Your task to perform on an android device: Search for apple airpods pro on bestbuy.com, select the first entry, and add it to the cart. Image 0: 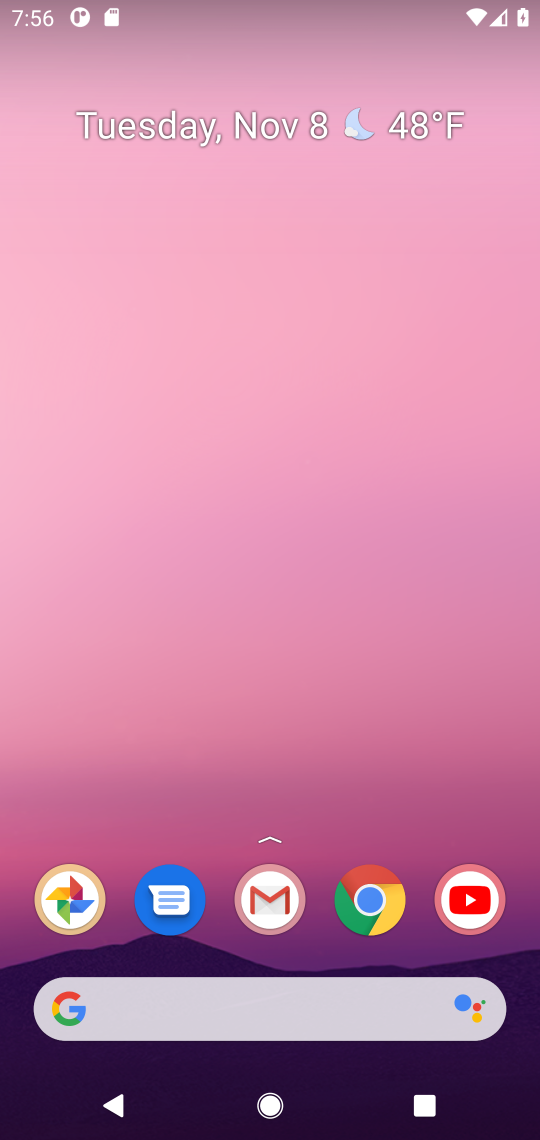
Step 0: drag from (272, 444) to (301, 80)
Your task to perform on an android device: Search for apple airpods pro on bestbuy.com, select the first entry, and add it to the cart. Image 1: 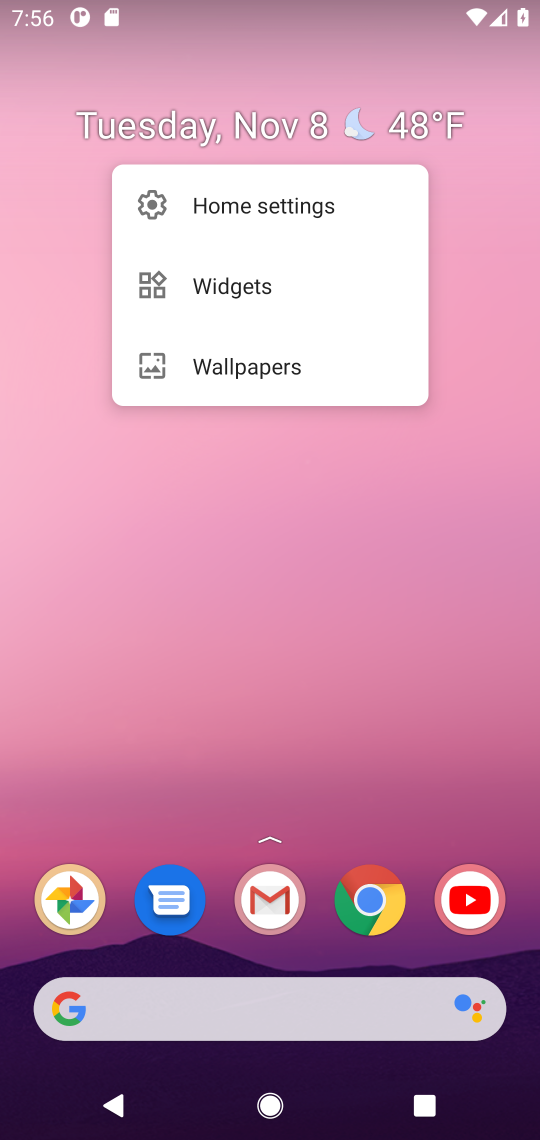
Step 1: click (386, 648)
Your task to perform on an android device: Search for apple airpods pro on bestbuy.com, select the first entry, and add it to the cart. Image 2: 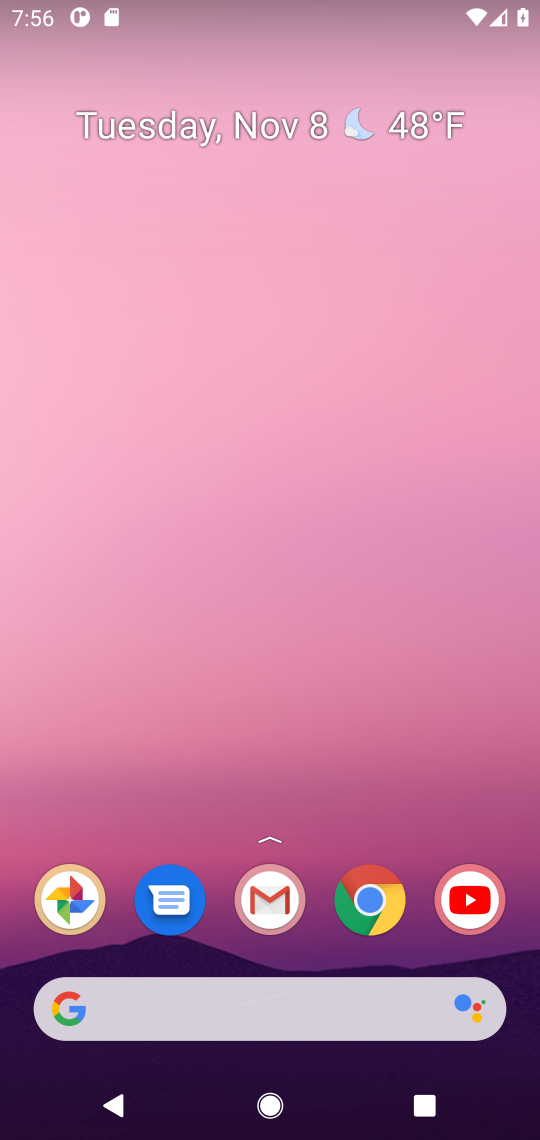
Step 2: drag from (193, 975) to (222, 46)
Your task to perform on an android device: Search for apple airpods pro on bestbuy.com, select the first entry, and add it to the cart. Image 3: 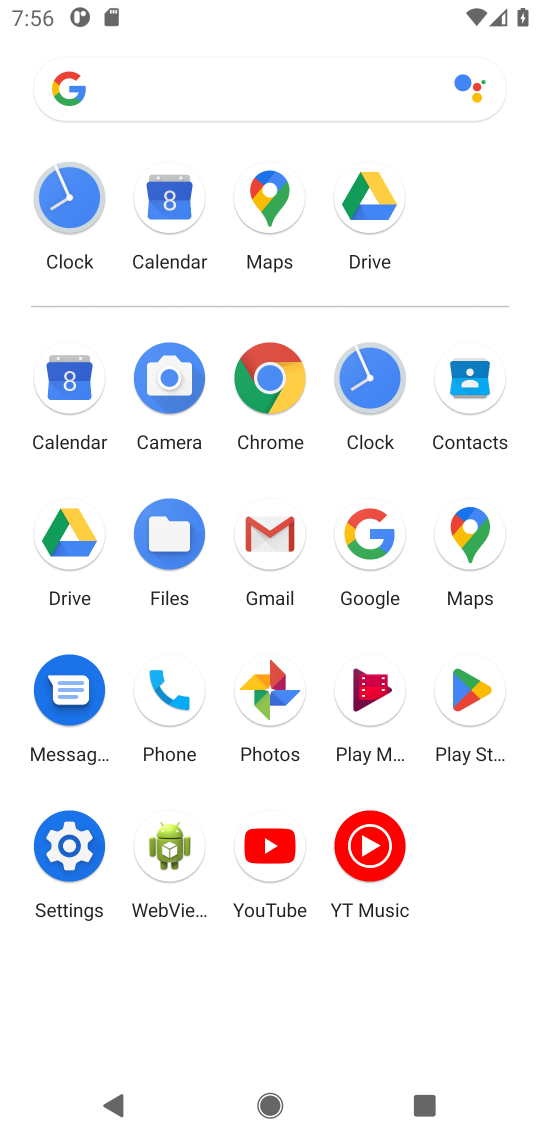
Step 3: click (367, 531)
Your task to perform on an android device: Search for apple airpods pro on bestbuy.com, select the first entry, and add it to the cart. Image 4: 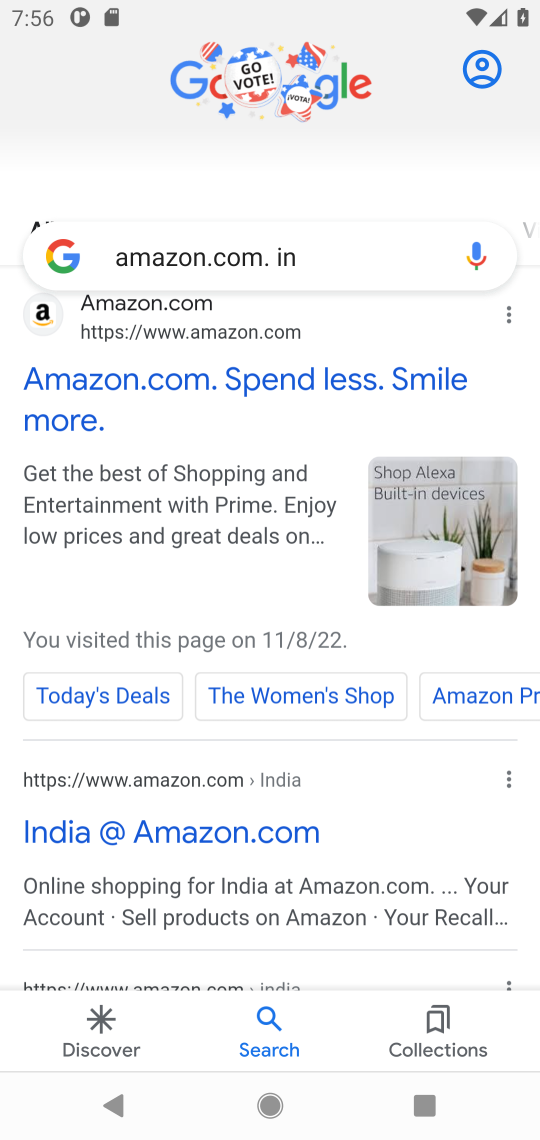
Step 4: click (271, 238)
Your task to perform on an android device: Search for apple airpods pro on bestbuy.com, select the first entry, and add it to the cart. Image 5: 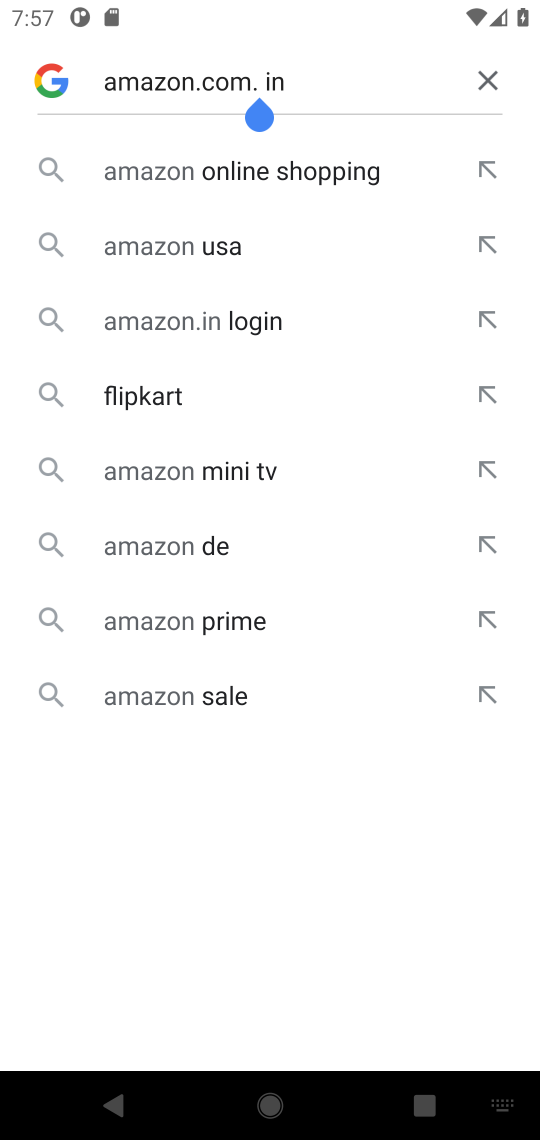
Step 5: click (483, 83)
Your task to perform on an android device: Search for apple airpods pro on bestbuy.com, select the first entry, and add it to the cart. Image 6: 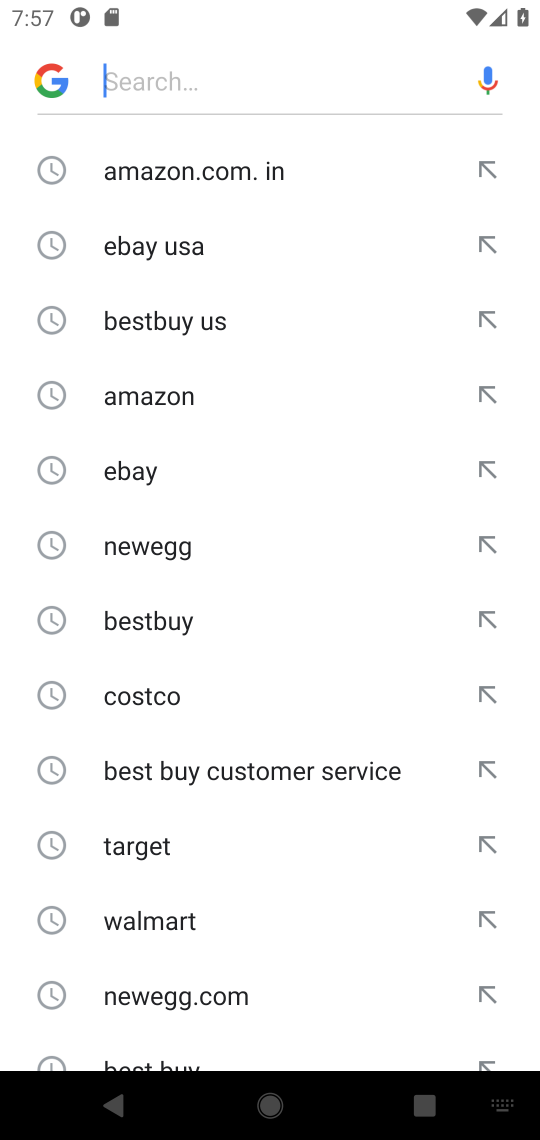
Step 6: click (219, 84)
Your task to perform on an android device: Search for apple airpods pro on bestbuy.com, select the first entry, and add it to the cart. Image 7: 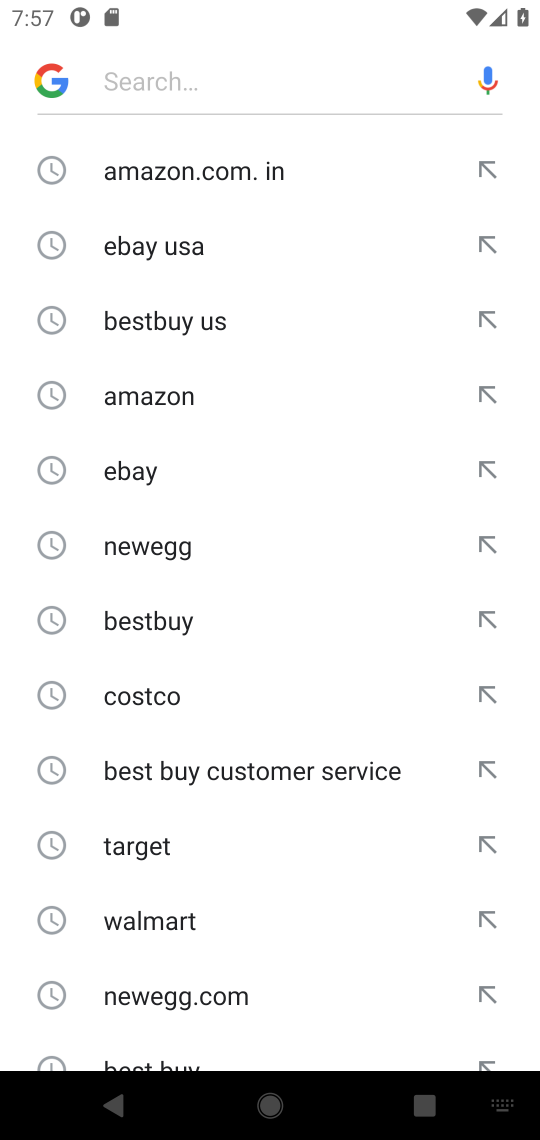
Step 7: type "bestbuy "
Your task to perform on an android device: Search for apple airpods pro on bestbuy.com, select the first entry, and add it to the cart. Image 8: 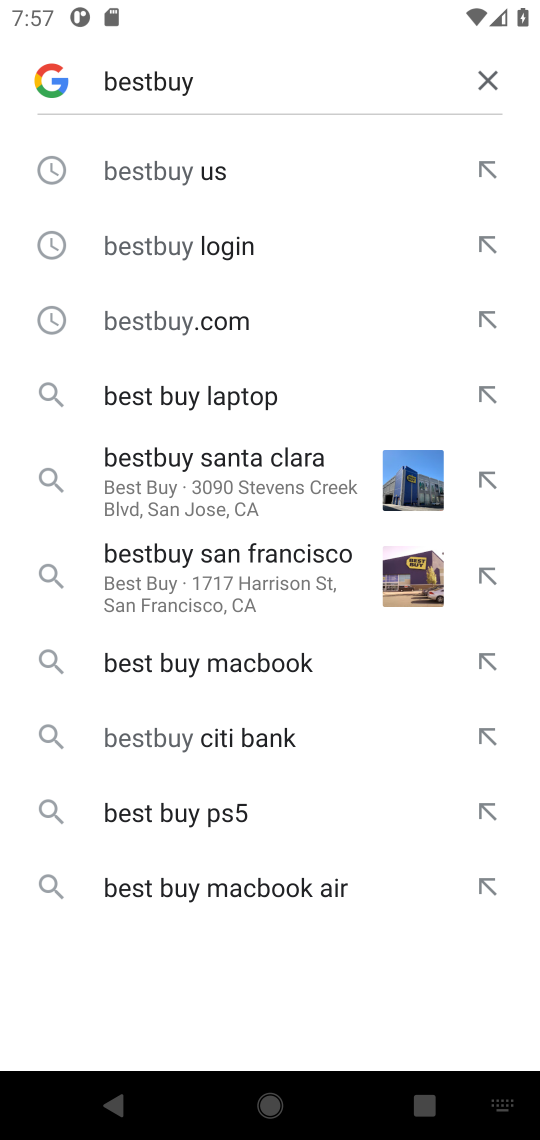
Step 8: click (184, 167)
Your task to perform on an android device: Search for apple airpods pro on bestbuy.com, select the first entry, and add it to the cart. Image 9: 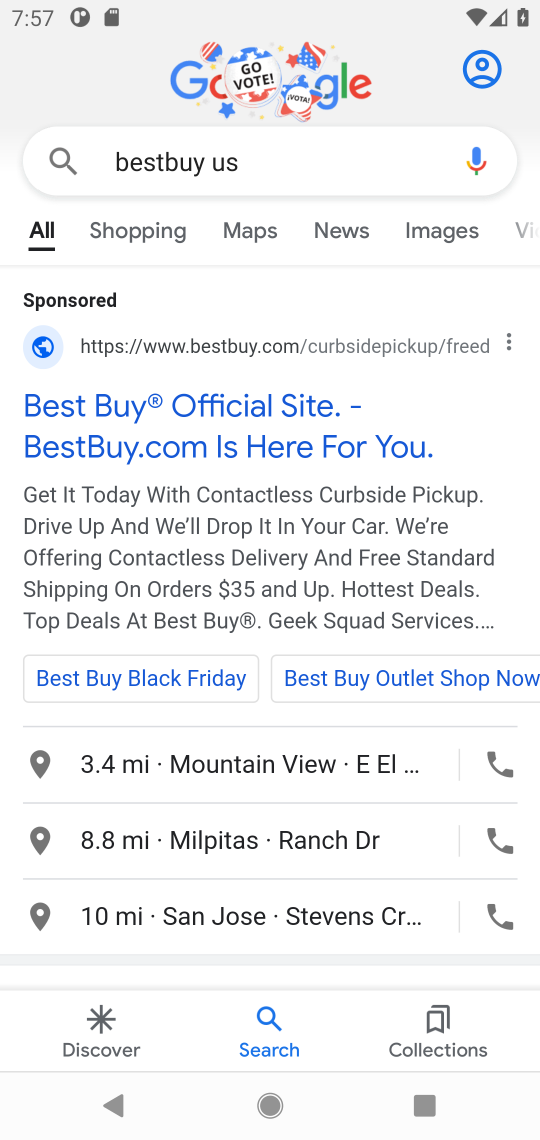
Step 9: drag from (200, 923) to (234, 279)
Your task to perform on an android device: Search for apple airpods pro on bestbuy.com, select the first entry, and add it to the cart. Image 10: 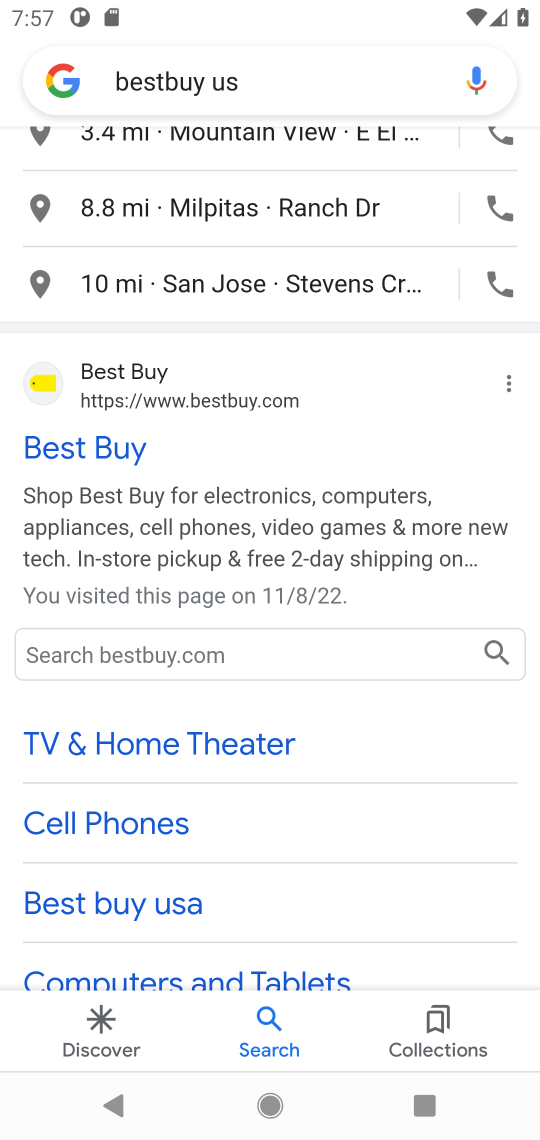
Step 10: click (43, 386)
Your task to perform on an android device: Search for apple airpods pro on bestbuy.com, select the first entry, and add it to the cart. Image 11: 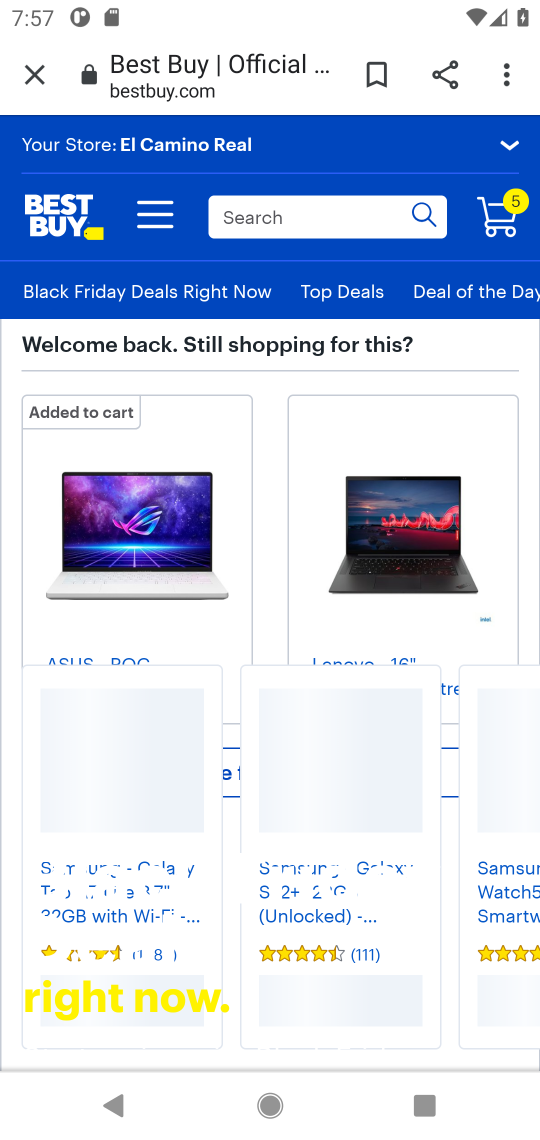
Step 11: click (276, 203)
Your task to perform on an android device: Search for apple airpods pro on bestbuy.com, select the first entry, and add it to the cart. Image 12: 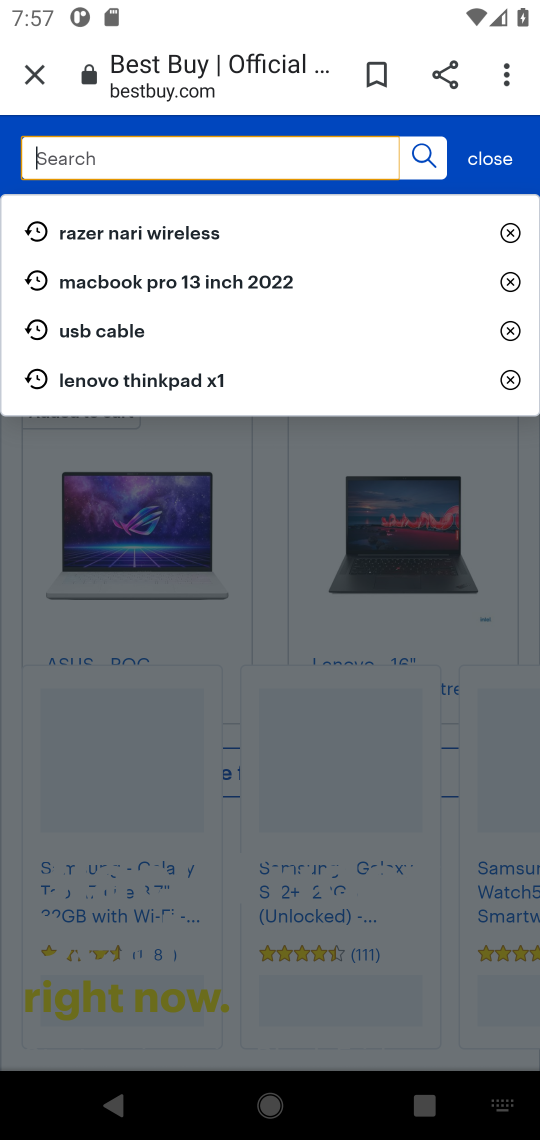
Step 12: click (208, 147)
Your task to perform on an android device: Search for apple airpods pro on bestbuy.com, select the first entry, and add it to the cart. Image 13: 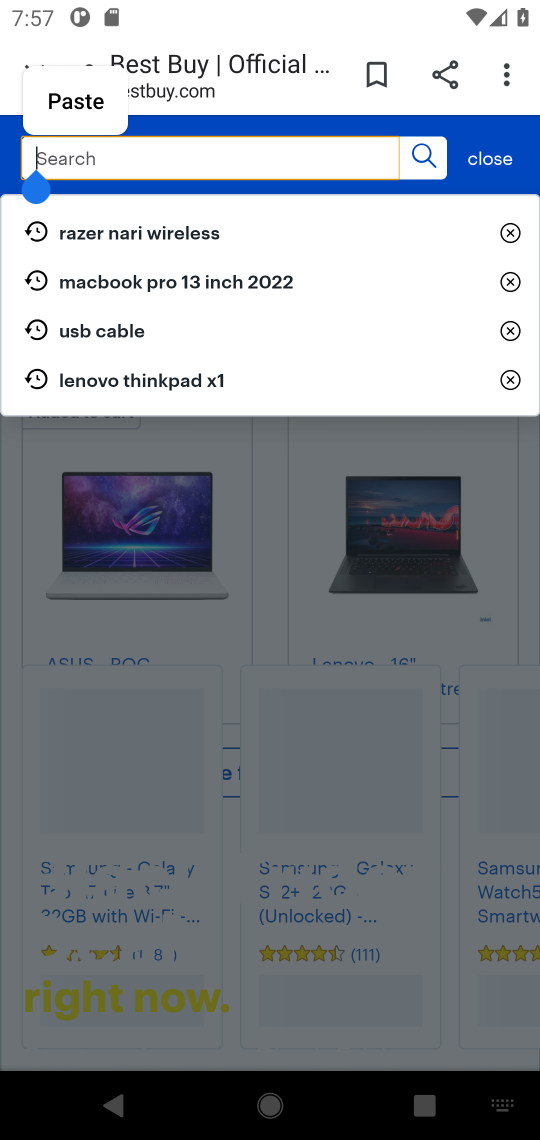
Step 13: type "airpods "
Your task to perform on an android device: Search for apple airpods pro on bestbuy.com, select the first entry, and add it to the cart. Image 14: 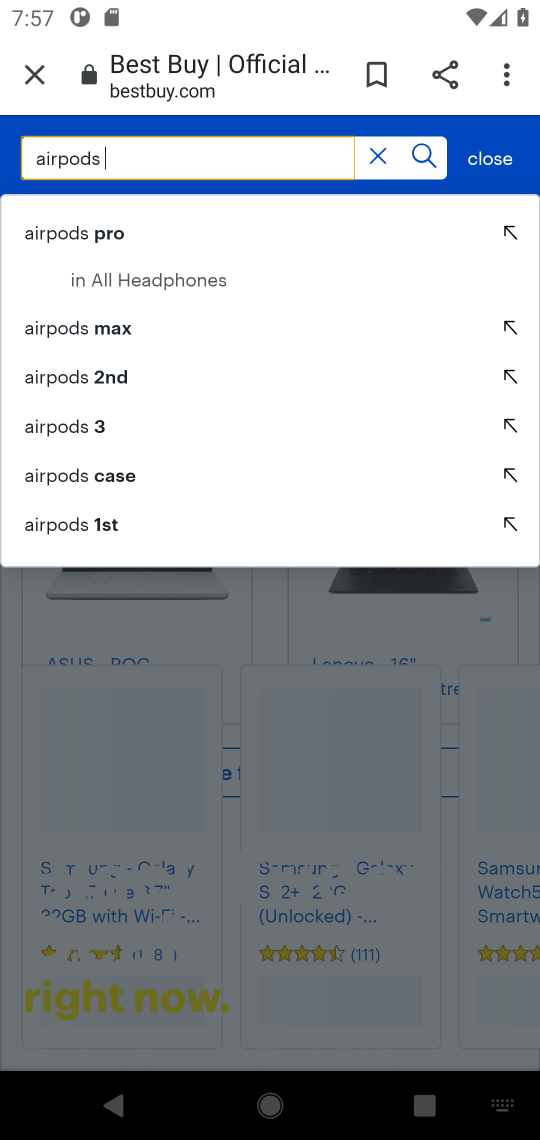
Step 14: click (99, 229)
Your task to perform on an android device: Search for apple airpods pro on bestbuy.com, select the first entry, and add it to the cart. Image 15: 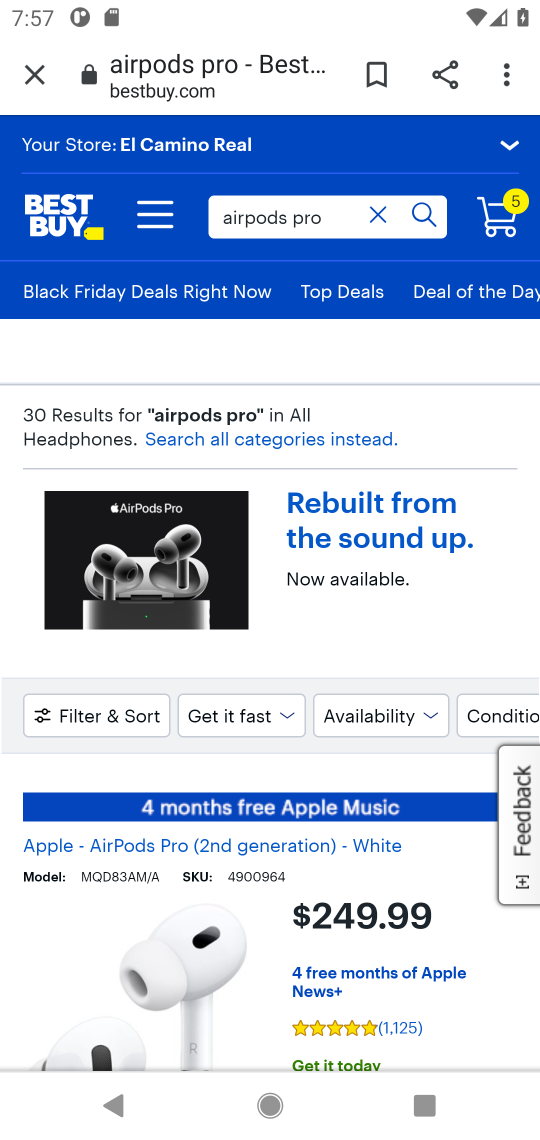
Step 15: drag from (377, 928) to (363, 396)
Your task to perform on an android device: Search for apple airpods pro on bestbuy.com, select the first entry, and add it to the cart. Image 16: 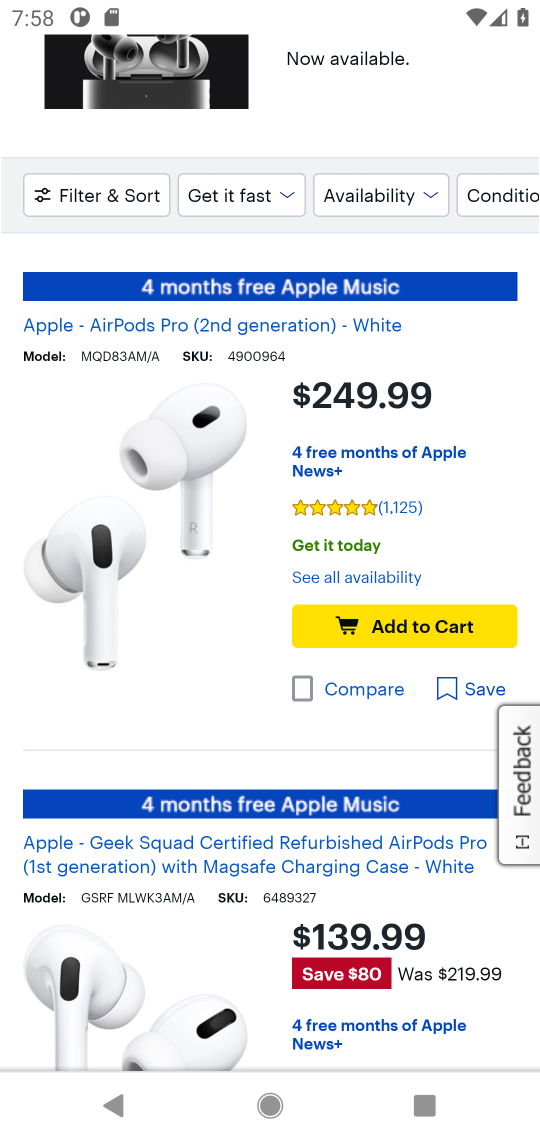
Step 16: click (386, 617)
Your task to perform on an android device: Search for apple airpods pro on bestbuy.com, select the first entry, and add it to the cart. Image 17: 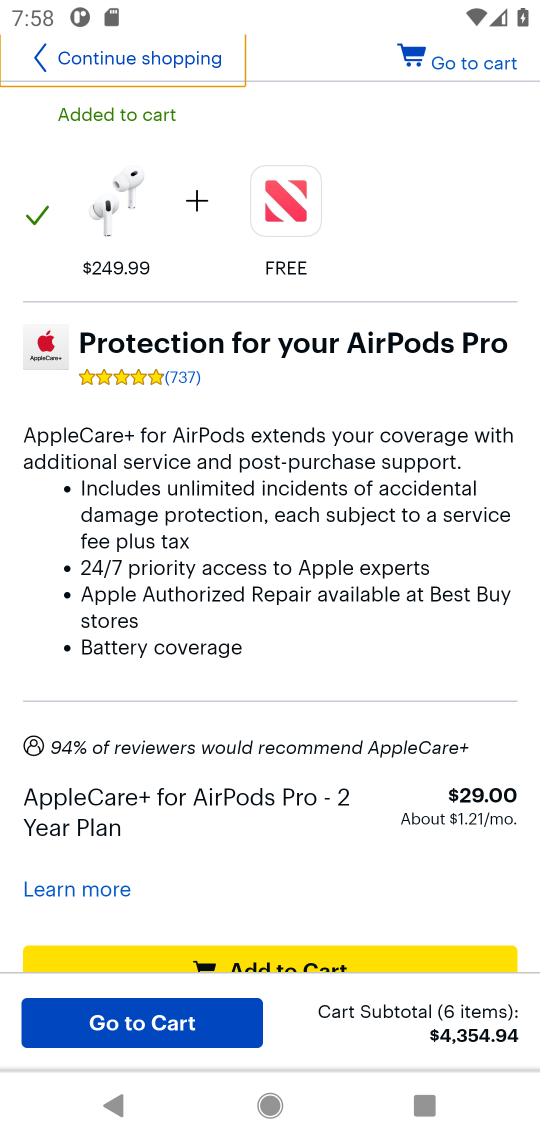
Step 17: task complete